Your task to perform on an android device: Go to wifi settings Image 0: 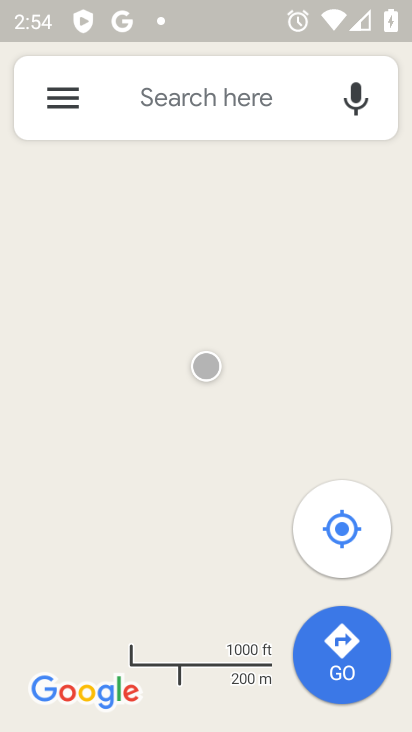
Step 0: press home button
Your task to perform on an android device: Go to wifi settings Image 1: 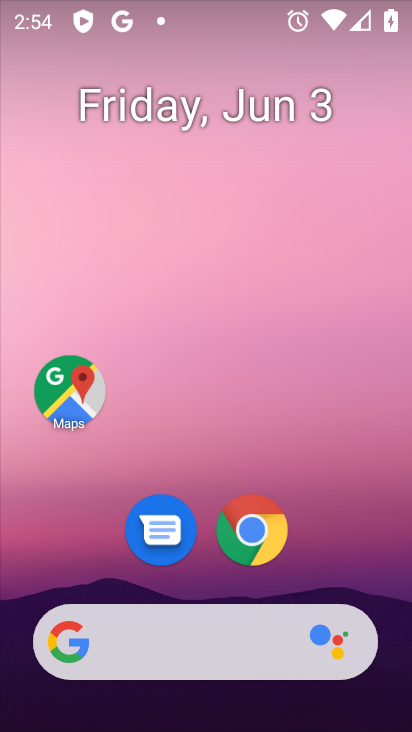
Step 1: drag from (133, 731) to (112, 74)
Your task to perform on an android device: Go to wifi settings Image 2: 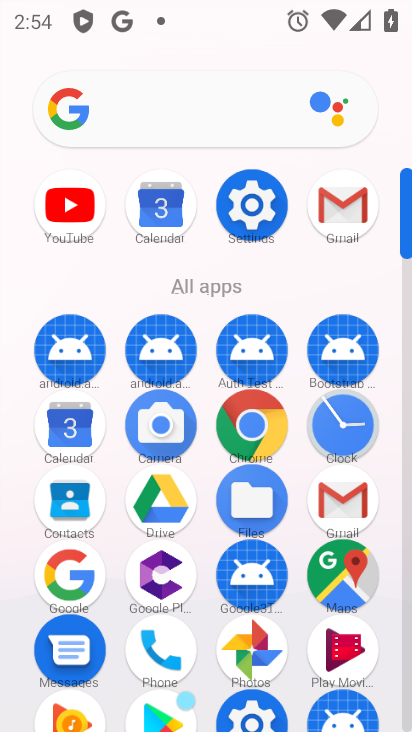
Step 2: click (233, 214)
Your task to perform on an android device: Go to wifi settings Image 3: 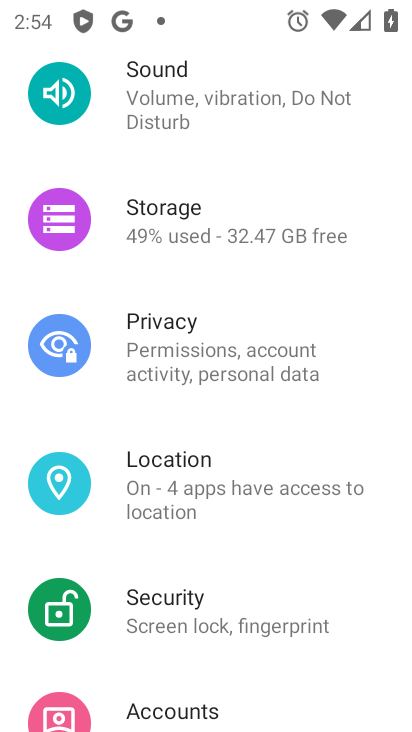
Step 3: drag from (338, 157) to (339, 675)
Your task to perform on an android device: Go to wifi settings Image 4: 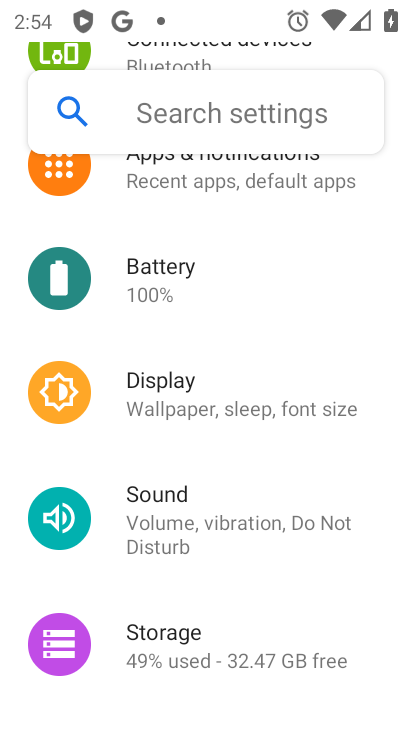
Step 4: drag from (300, 284) to (324, 683)
Your task to perform on an android device: Go to wifi settings Image 5: 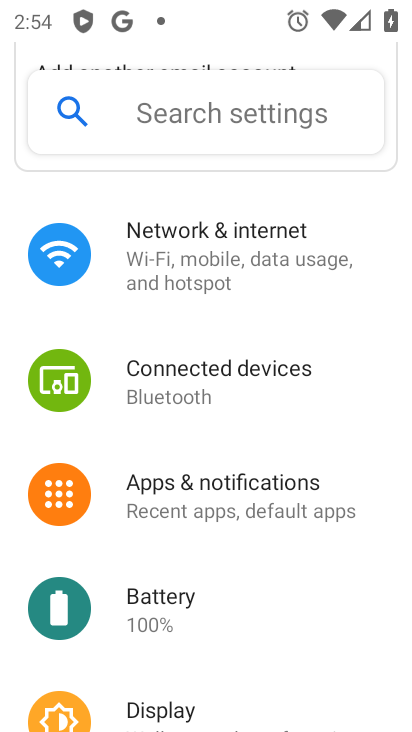
Step 5: click (241, 258)
Your task to perform on an android device: Go to wifi settings Image 6: 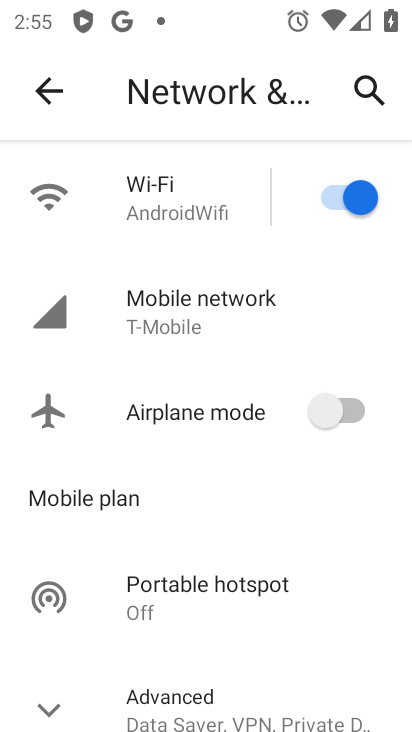
Step 6: click (183, 222)
Your task to perform on an android device: Go to wifi settings Image 7: 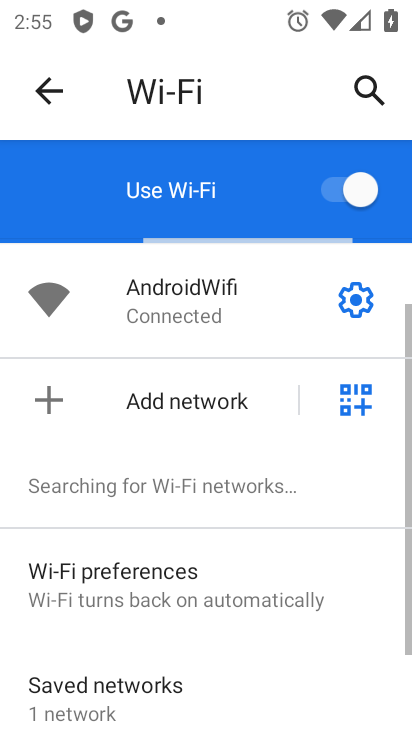
Step 7: task complete